Your task to perform on an android device: turn on improve location accuracy Image 0: 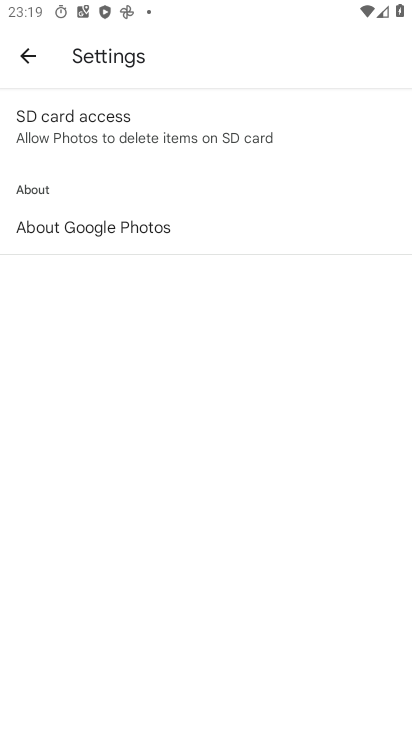
Step 0: press home button
Your task to perform on an android device: turn on improve location accuracy Image 1: 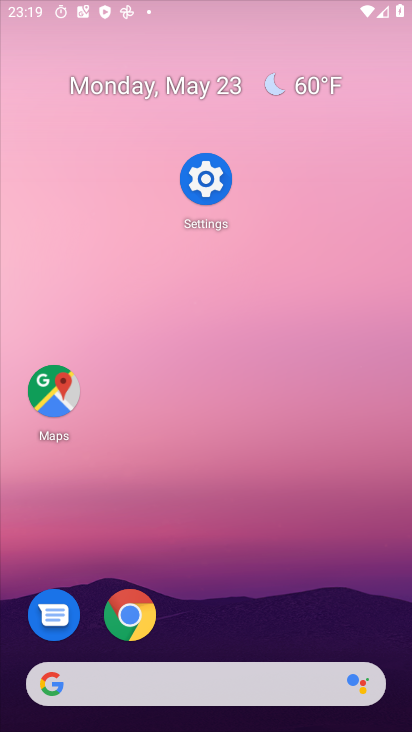
Step 1: drag from (200, 590) to (204, 96)
Your task to perform on an android device: turn on improve location accuracy Image 2: 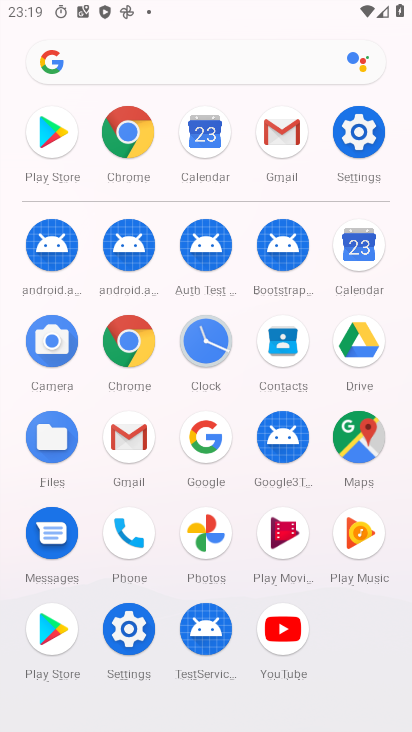
Step 2: click (369, 131)
Your task to perform on an android device: turn on improve location accuracy Image 3: 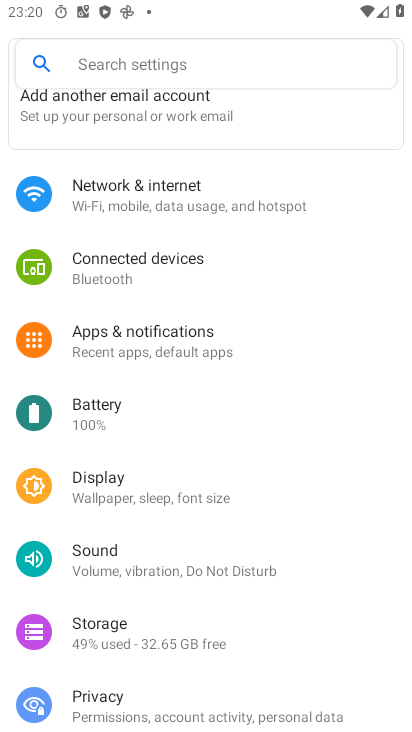
Step 3: drag from (189, 650) to (200, 250)
Your task to perform on an android device: turn on improve location accuracy Image 4: 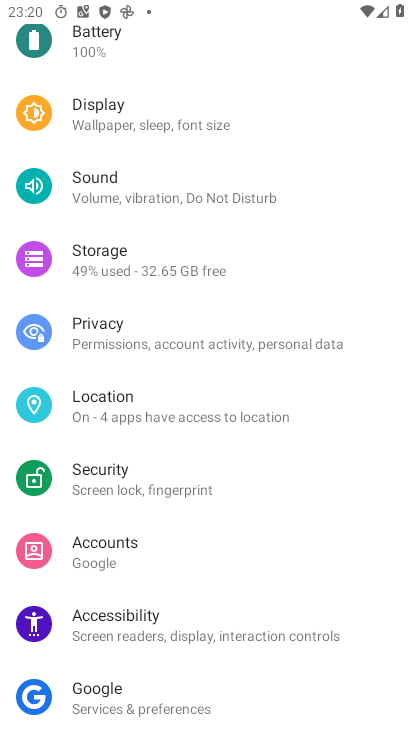
Step 4: click (119, 410)
Your task to perform on an android device: turn on improve location accuracy Image 5: 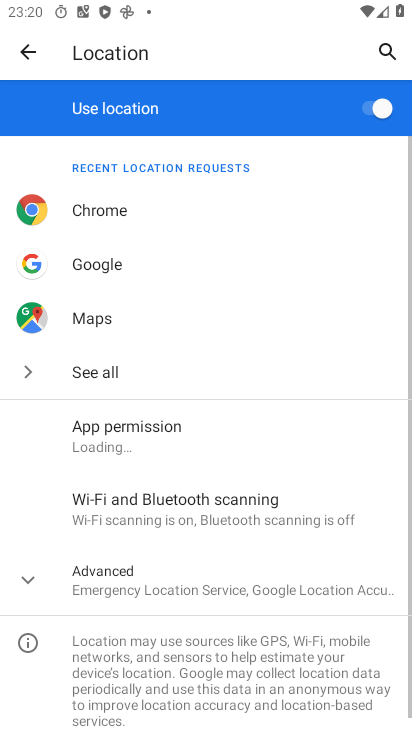
Step 5: click (130, 582)
Your task to perform on an android device: turn on improve location accuracy Image 6: 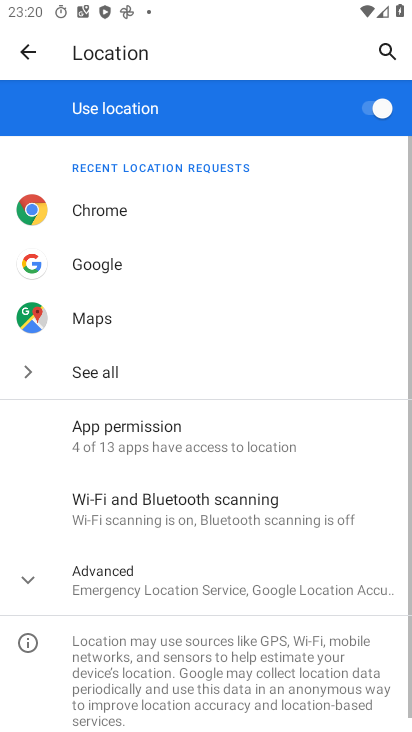
Step 6: click (148, 581)
Your task to perform on an android device: turn on improve location accuracy Image 7: 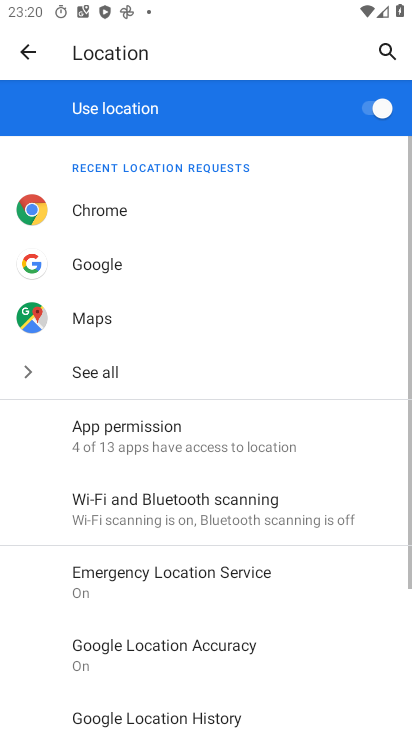
Step 7: task complete